Your task to perform on an android device: add a contact Image 0: 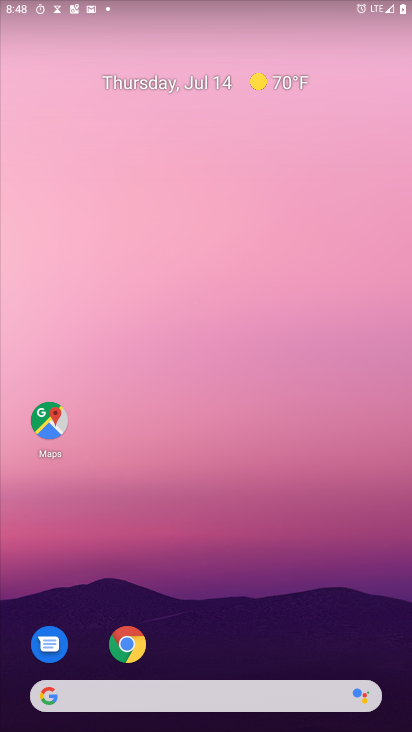
Step 0: press home button
Your task to perform on an android device: add a contact Image 1: 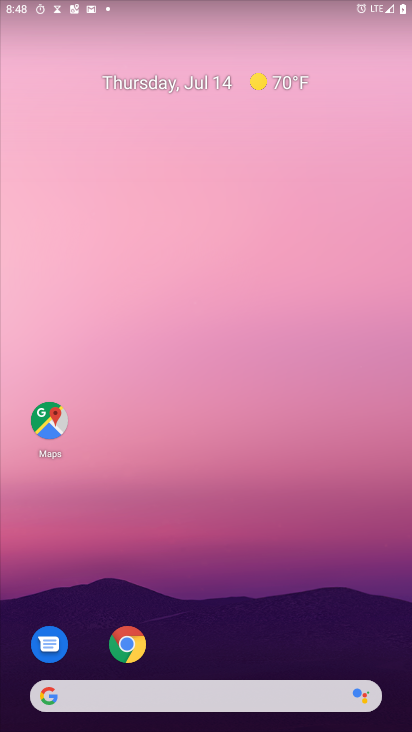
Step 1: drag from (163, 697) to (298, 60)
Your task to perform on an android device: add a contact Image 2: 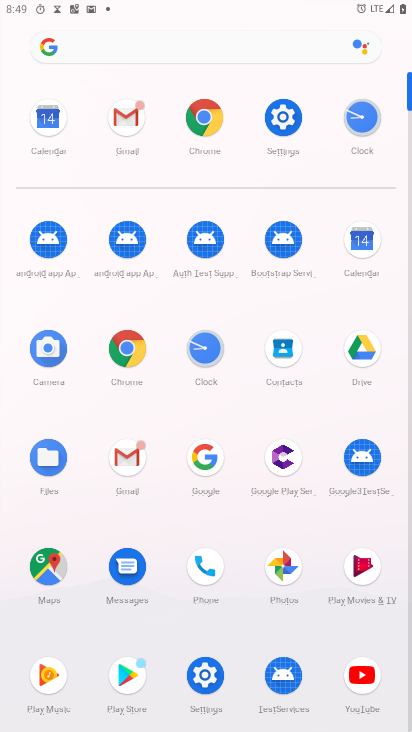
Step 2: click (294, 344)
Your task to perform on an android device: add a contact Image 3: 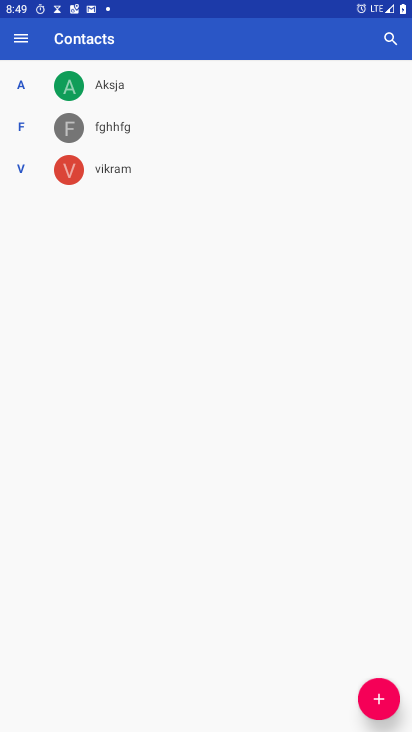
Step 3: click (382, 695)
Your task to perform on an android device: add a contact Image 4: 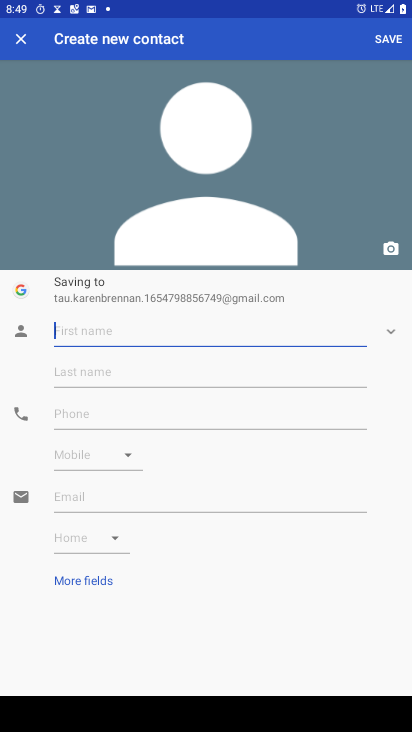
Step 4: type "yyyy"
Your task to perform on an android device: add a contact Image 5: 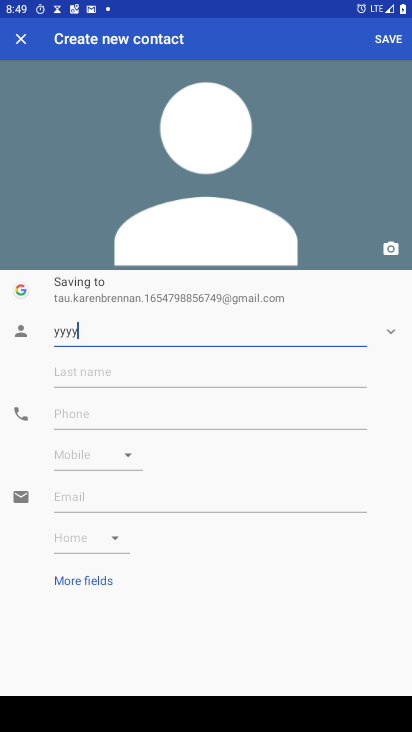
Step 5: click (128, 411)
Your task to perform on an android device: add a contact Image 6: 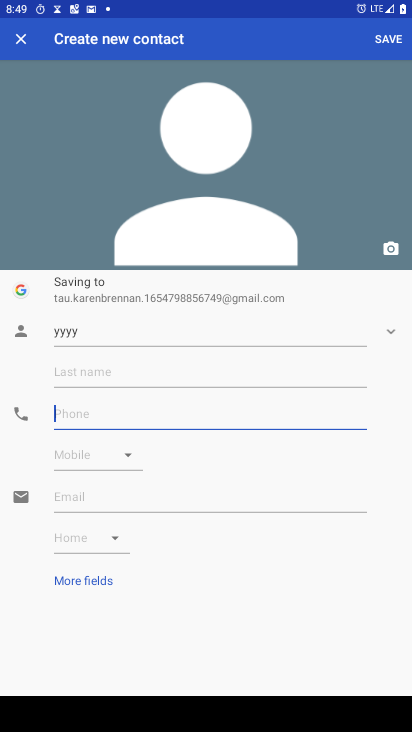
Step 6: type "13243544"
Your task to perform on an android device: add a contact Image 7: 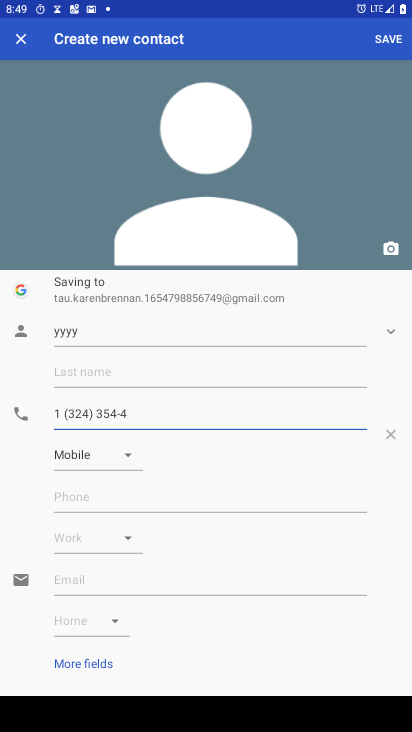
Step 7: click (401, 34)
Your task to perform on an android device: add a contact Image 8: 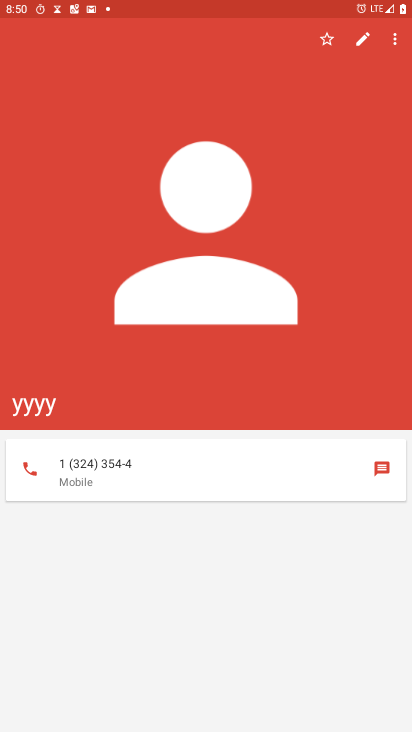
Step 8: task complete